Your task to perform on an android device: change text size in settings app Image 0: 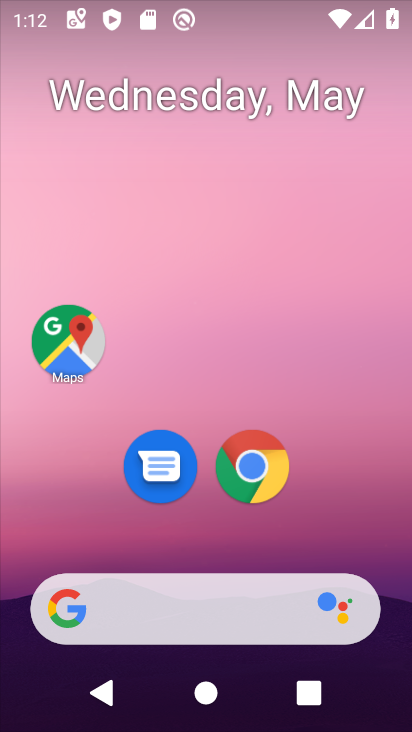
Step 0: drag from (212, 537) to (242, 62)
Your task to perform on an android device: change text size in settings app Image 1: 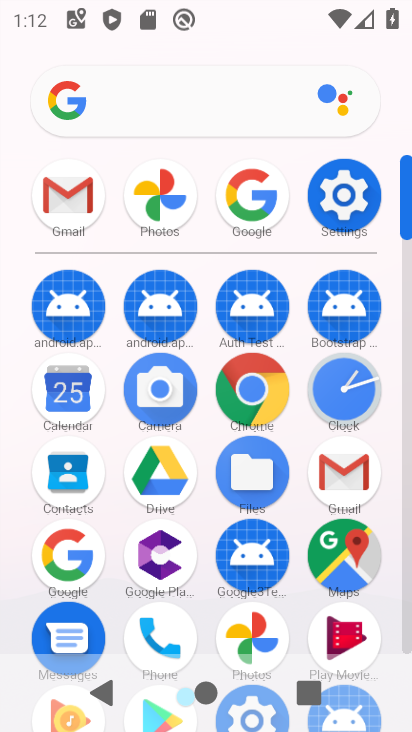
Step 1: click (341, 200)
Your task to perform on an android device: change text size in settings app Image 2: 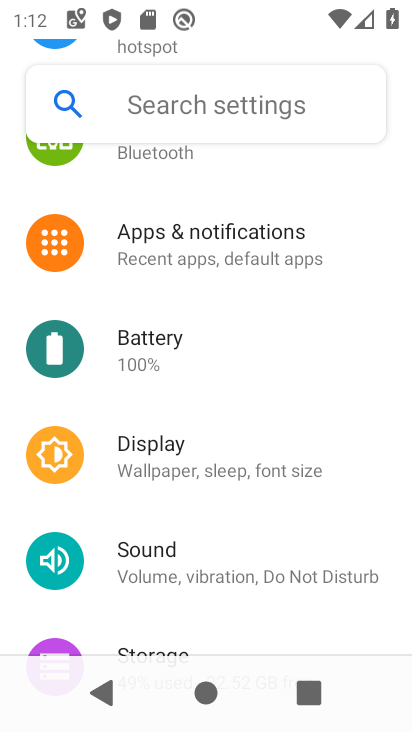
Step 2: click (186, 460)
Your task to perform on an android device: change text size in settings app Image 3: 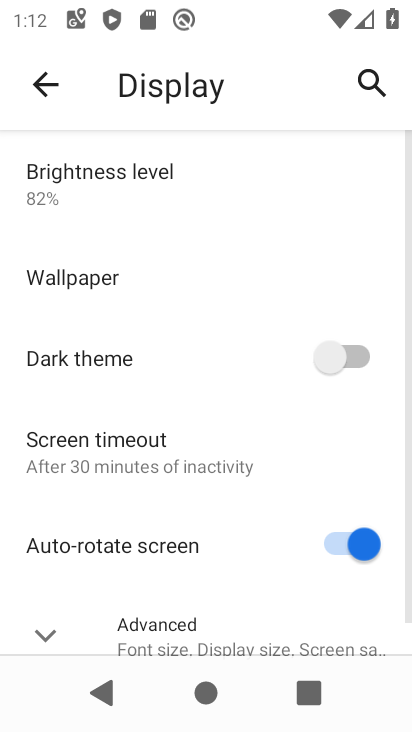
Step 3: drag from (163, 571) to (173, 343)
Your task to perform on an android device: change text size in settings app Image 4: 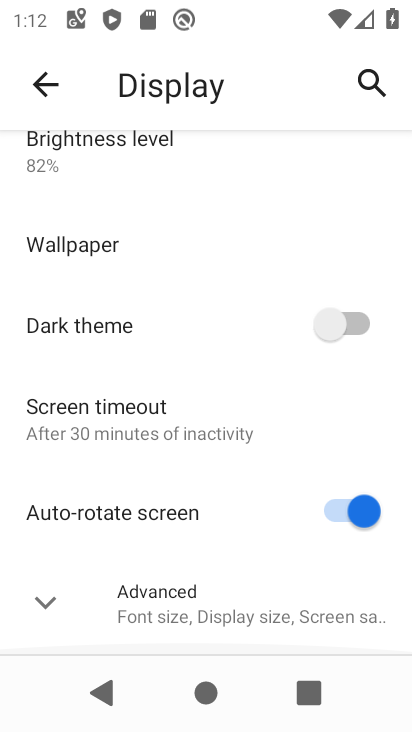
Step 4: click (183, 608)
Your task to perform on an android device: change text size in settings app Image 5: 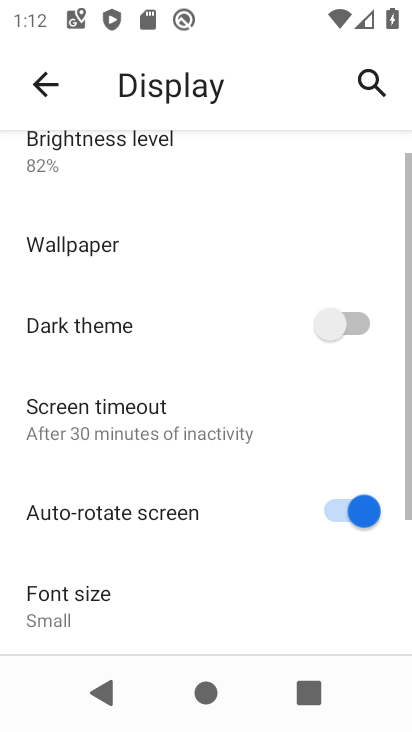
Step 5: drag from (220, 515) to (220, 307)
Your task to perform on an android device: change text size in settings app Image 6: 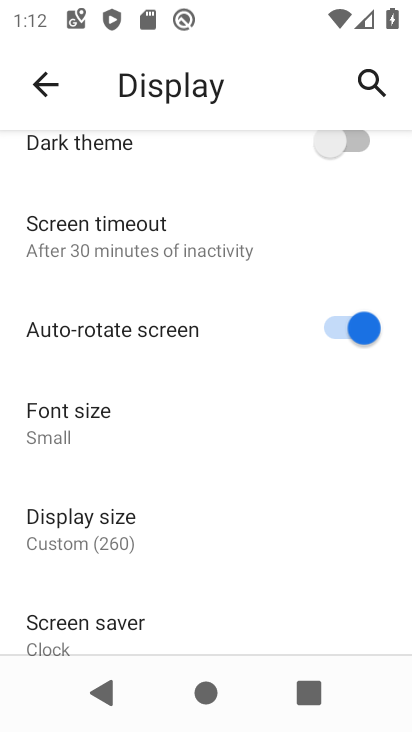
Step 6: click (88, 425)
Your task to perform on an android device: change text size in settings app Image 7: 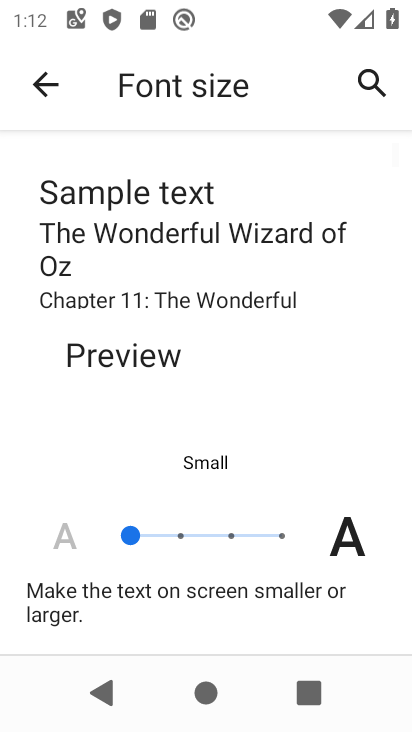
Step 7: task complete